Your task to perform on an android device: Open Google Maps Image 0: 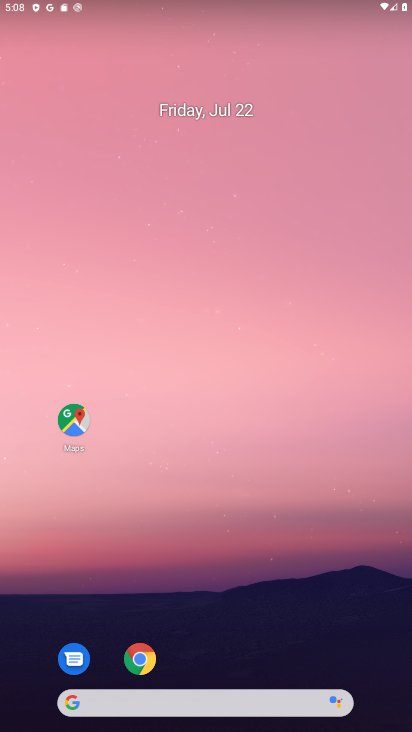
Step 0: press home button
Your task to perform on an android device: Open Google Maps Image 1: 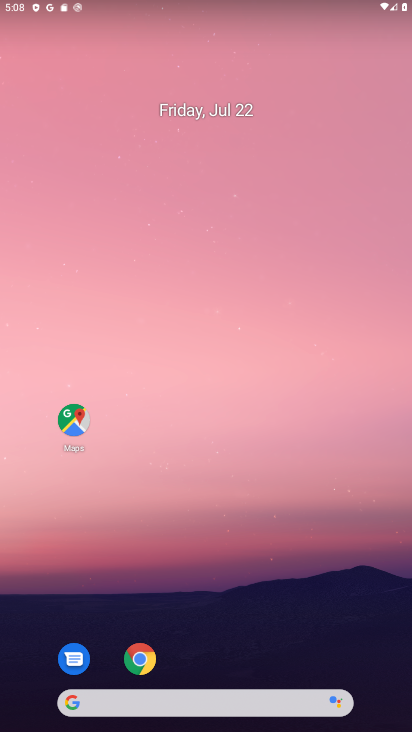
Step 1: click (76, 415)
Your task to perform on an android device: Open Google Maps Image 2: 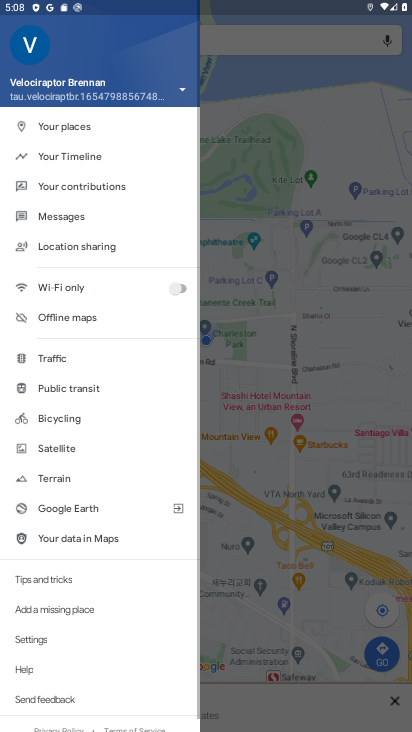
Step 2: click (269, 489)
Your task to perform on an android device: Open Google Maps Image 3: 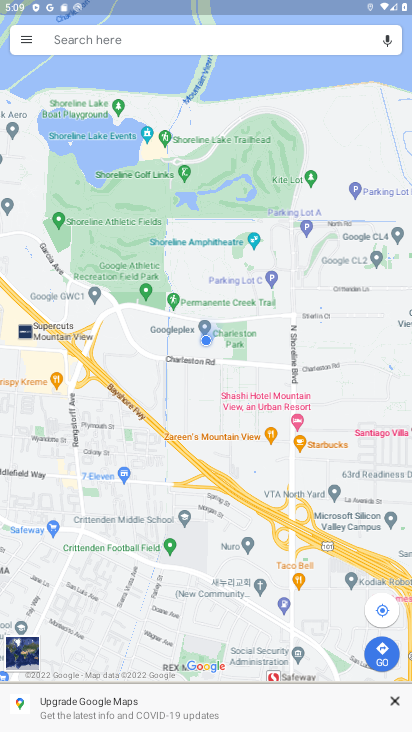
Step 3: task complete